Your task to perform on an android device: make emails show in primary in the gmail app Image 0: 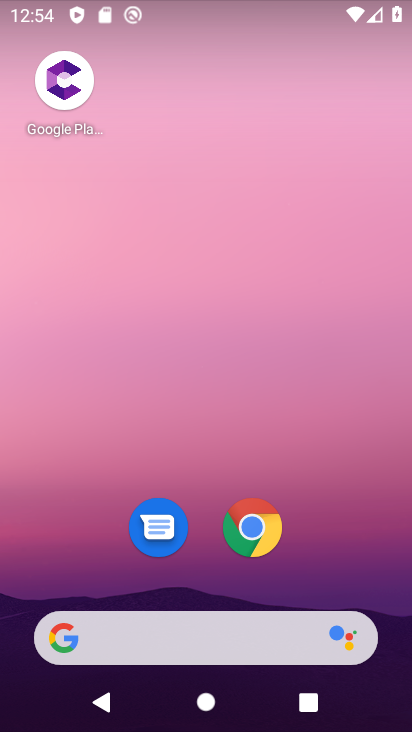
Step 0: drag from (375, 595) to (369, 76)
Your task to perform on an android device: make emails show in primary in the gmail app Image 1: 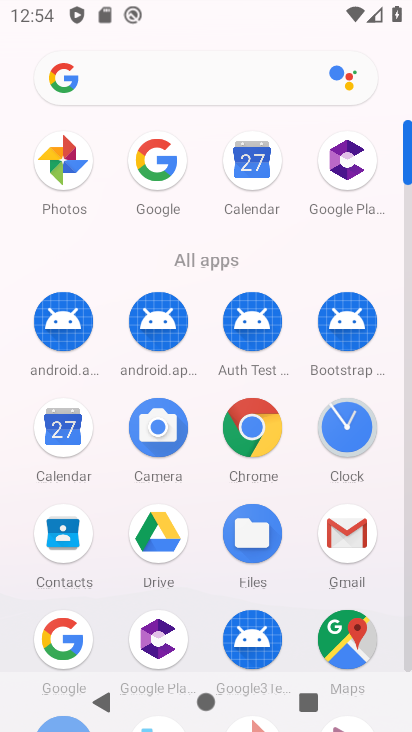
Step 1: click (356, 523)
Your task to perform on an android device: make emails show in primary in the gmail app Image 2: 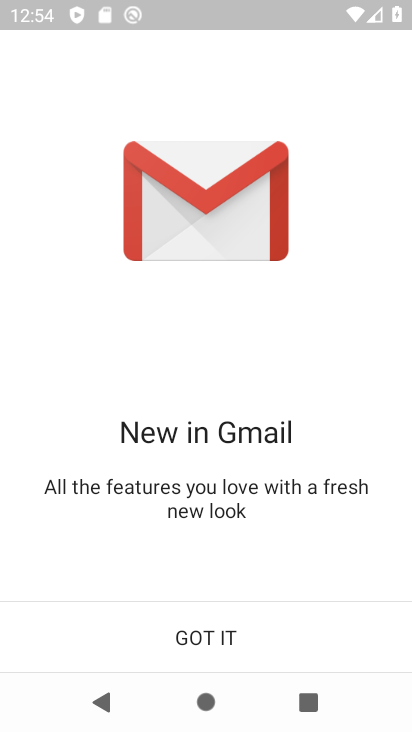
Step 2: click (300, 656)
Your task to perform on an android device: make emails show in primary in the gmail app Image 3: 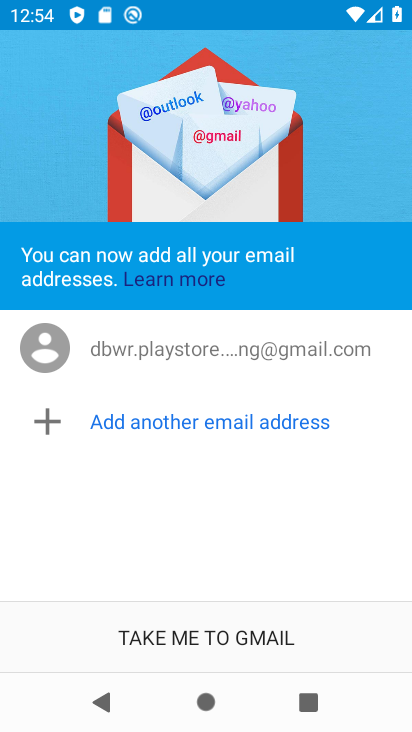
Step 3: click (273, 636)
Your task to perform on an android device: make emails show in primary in the gmail app Image 4: 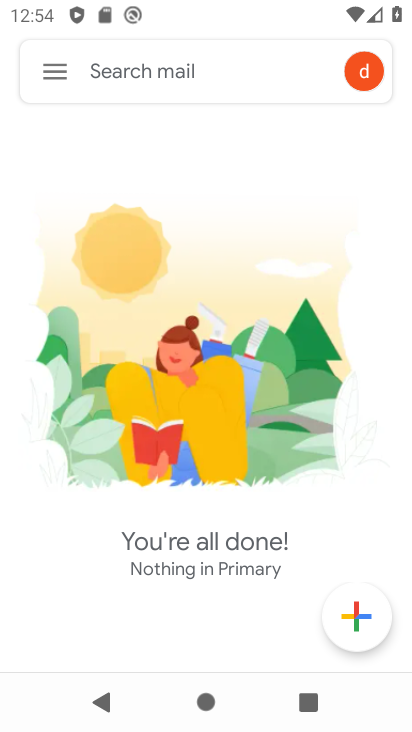
Step 4: click (73, 74)
Your task to perform on an android device: make emails show in primary in the gmail app Image 5: 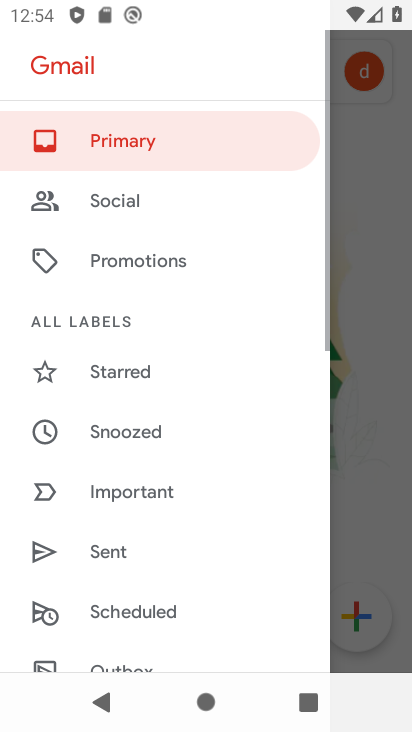
Step 5: drag from (169, 609) to (152, 160)
Your task to perform on an android device: make emails show in primary in the gmail app Image 6: 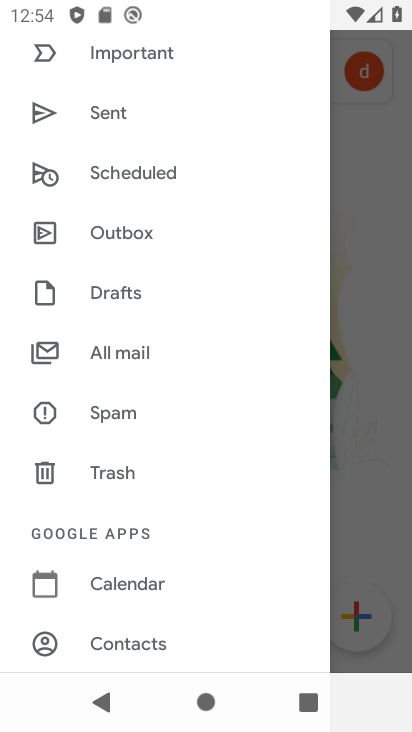
Step 6: drag from (131, 645) to (204, 417)
Your task to perform on an android device: make emails show in primary in the gmail app Image 7: 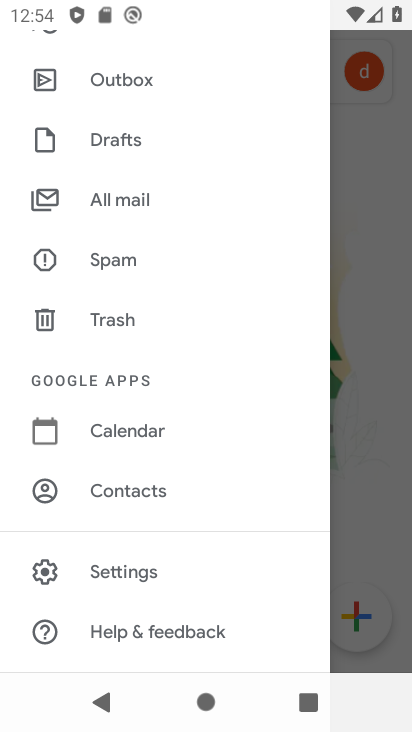
Step 7: click (167, 568)
Your task to perform on an android device: make emails show in primary in the gmail app Image 8: 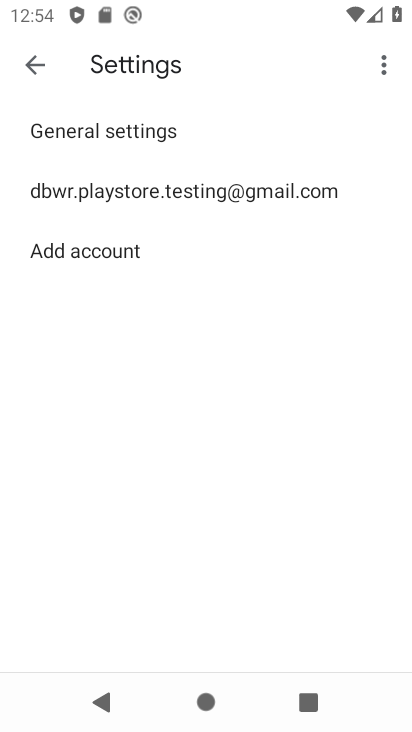
Step 8: click (198, 199)
Your task to perform on an android device: make emails show in primary in the gmail app Image 9: 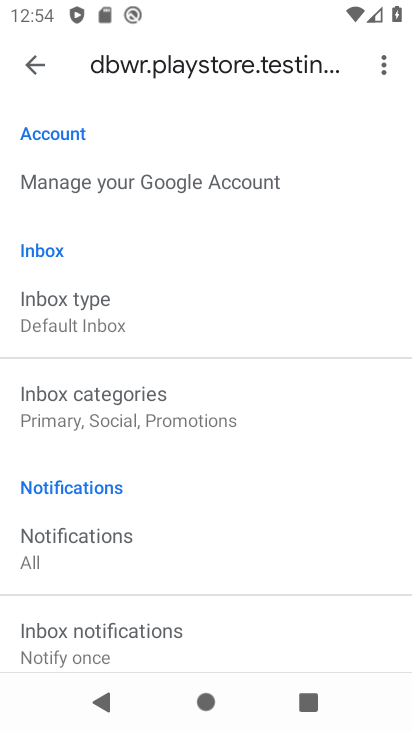
Step 9: click (198, 199)
Your task to perform on an android device: make emails show in primary in the gmail app Image 10: 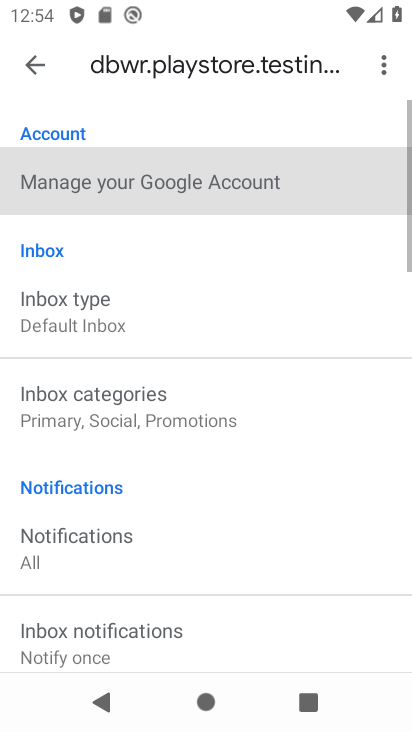
Step 10: drag from (198, 199) to (198, 277)
Your task to perform on an android device: make emails show in primary in the gmail app Image 11: 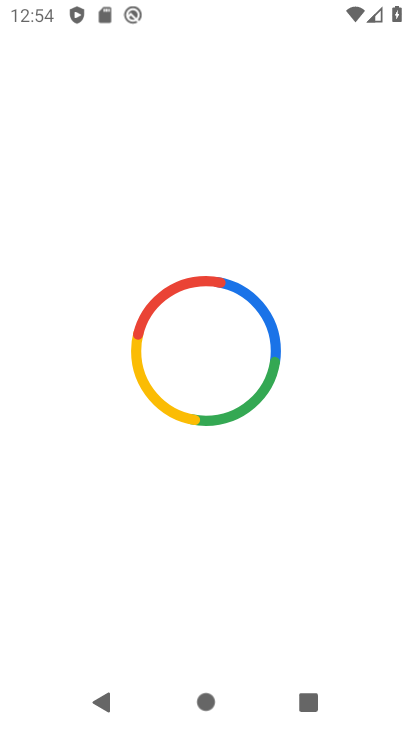
Step 11: press back button
Your task to perform on an android device: make emails show in primary in the gmail app Image 12: 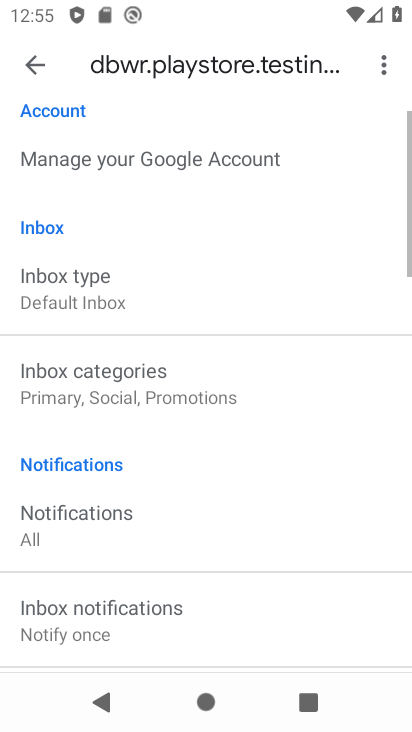
Step 12: drag from (251, 599) to (248, 514)
Your task to perform on an android device: make emails show in primary in the gmail app Image 13: 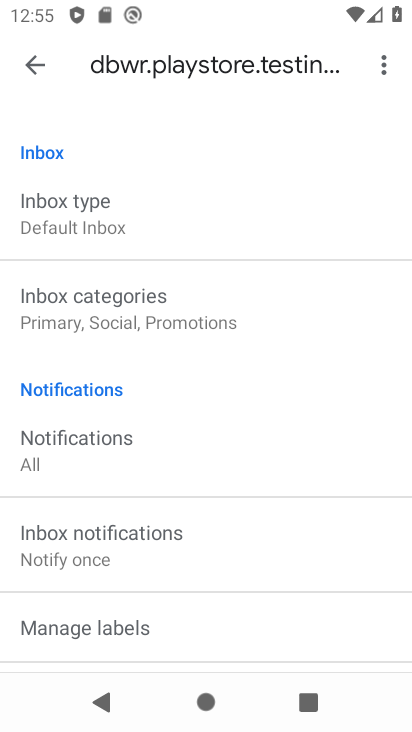
Step 13: click (110, 290)
Your task to perform on an android device: make emails show in primary in the gmail app Image 14: 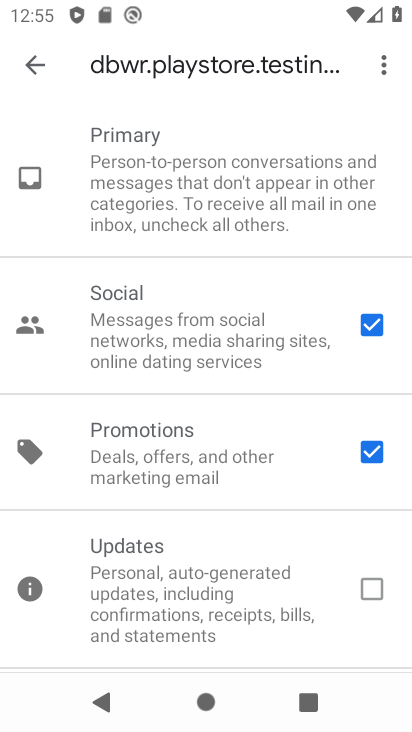
Step 14: click (374, 332)
Your task to perform on an android device: make emails show in primary in the gmail app Image 15: 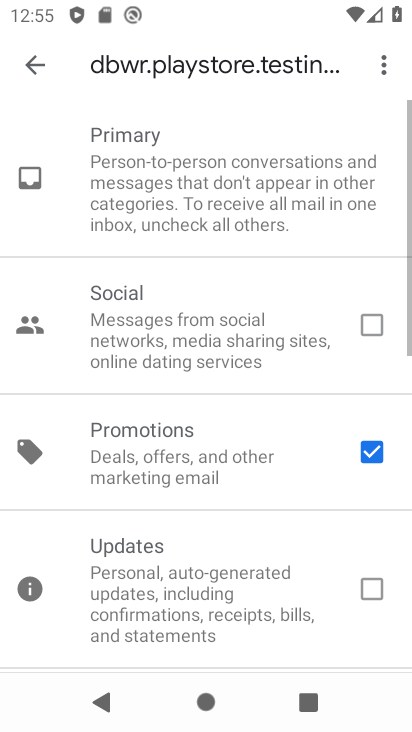
Step 15: click (371, 447)
Your task to perform on an android device: make emails show in primary in the gmail app Image 16: 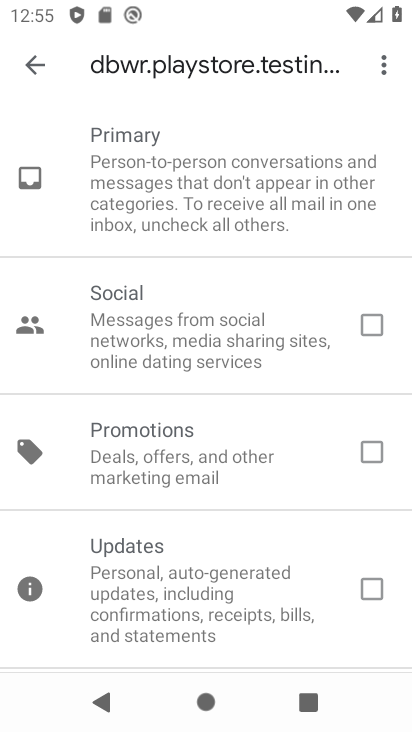
Step 16: task complete